Your task to perform on an android device: Open the Play Movies app and select the watchlist tab. Image 0: 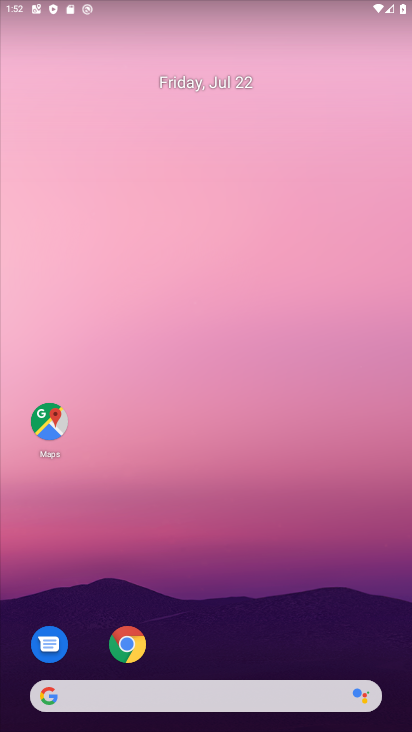
Step 0: drag from (306, 665) to (291, 139)
Your task to perform on an android device: Open the Play Movies app and select the watchlist tab. Image 1: 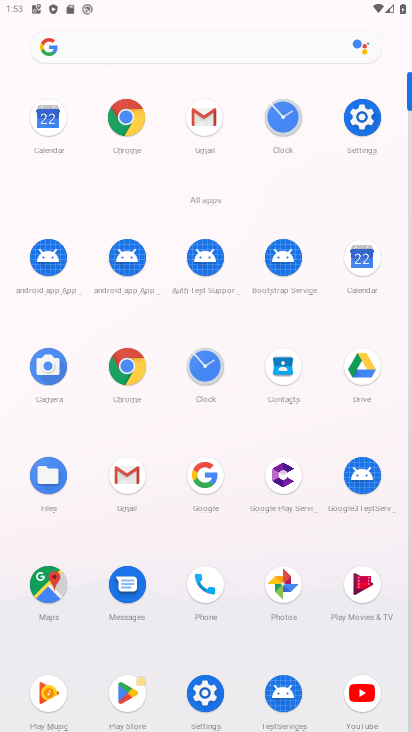
Step 1: click (368, 598)
Your task to perform on an android device: Open the Play Movies app and select the watchlist tab. Image 2: 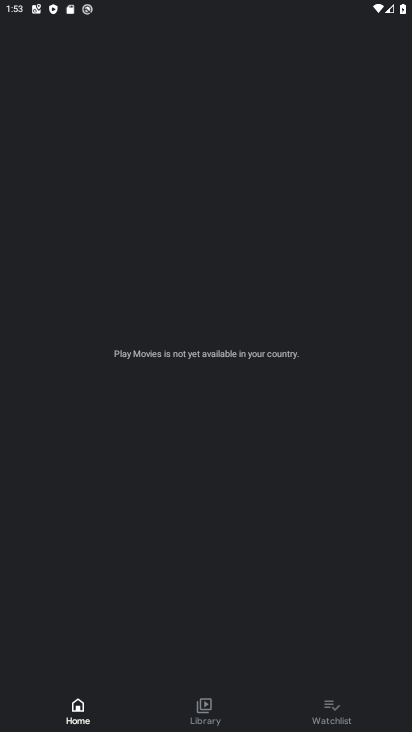
Step 2: click (323, 712)
Your task to perform on an android device: Open the Play Movies app and select the watchlist tab. Image 3: 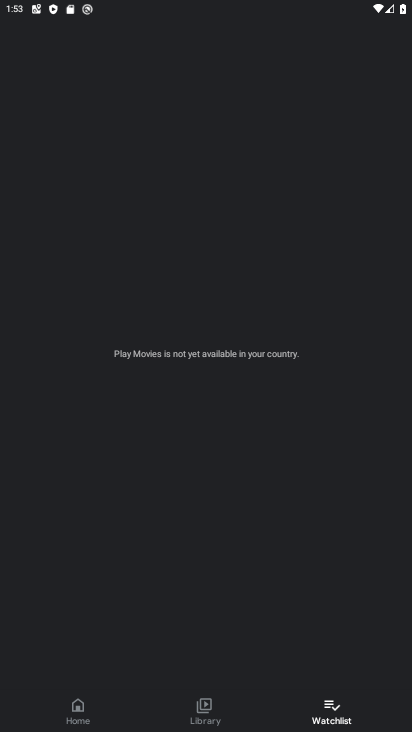
Step 3: task complete